Your task to perform on an android device: change the clock display to show seconds Image 0: 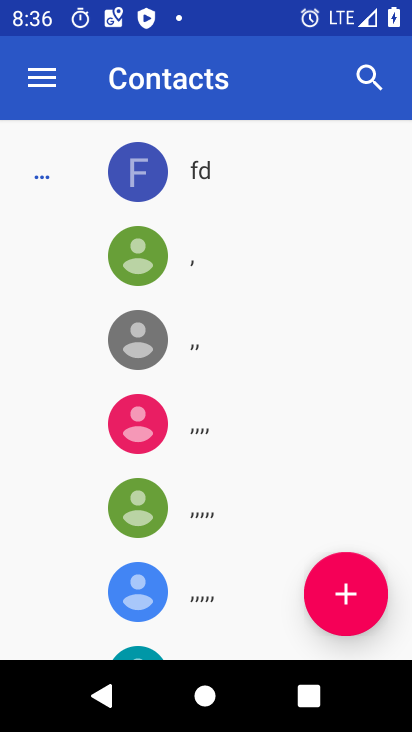
Step 0: press home button
Your task to perform on an android device: change the clock display to show seconds Image 1: 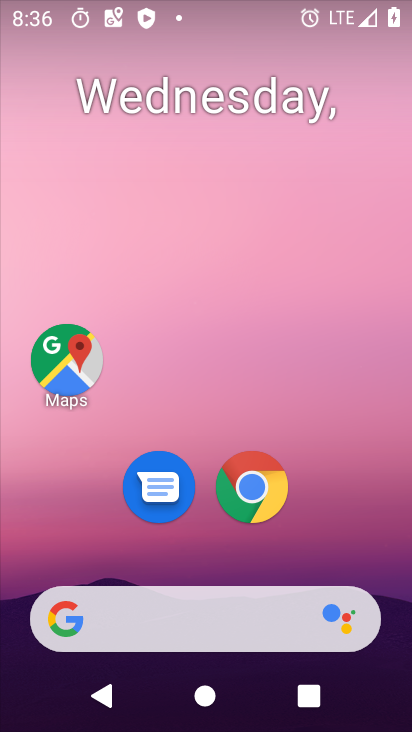
Step 1: drag from (345, 572) to (333, 11)
Your task to perform on an android device: change the clock display to show seconds Image 2: 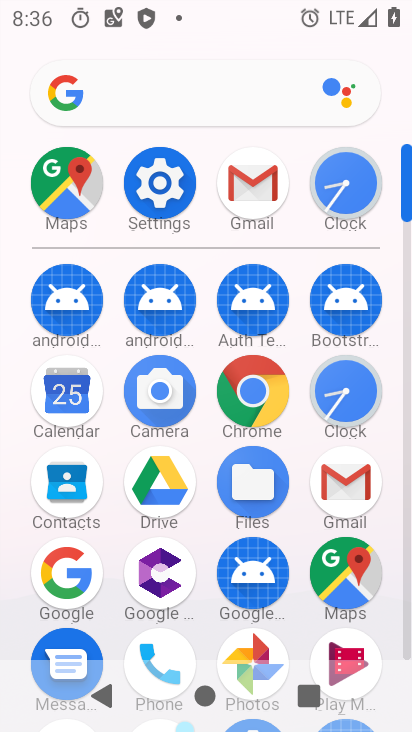
Step 2: click (348, 188)
Your task to perform on an android device: change the clock display to show seconds Image 3: 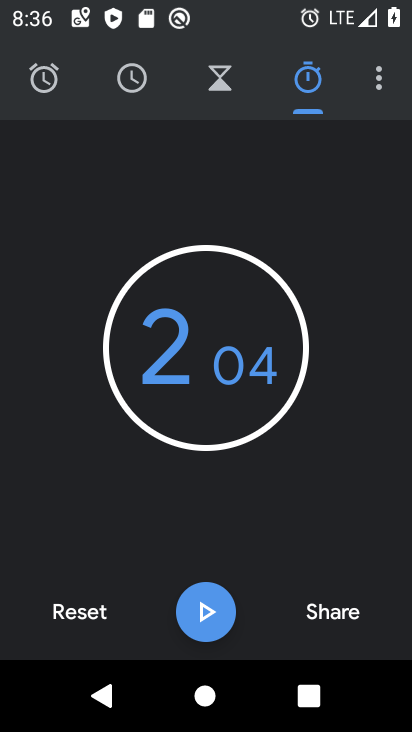
Step 3: click (380, 82)
Your task to perform on an android device: change the clock display to show seconds Image 4: 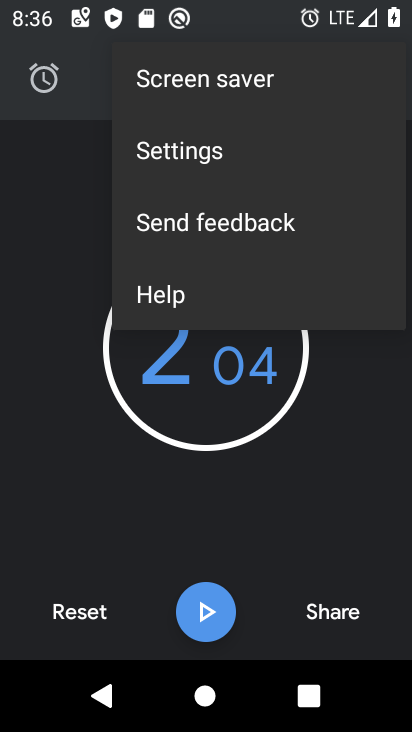
Step 4: click (170, 151)
Your task to perform on an android device: change the clock display to show seconds Image 5: 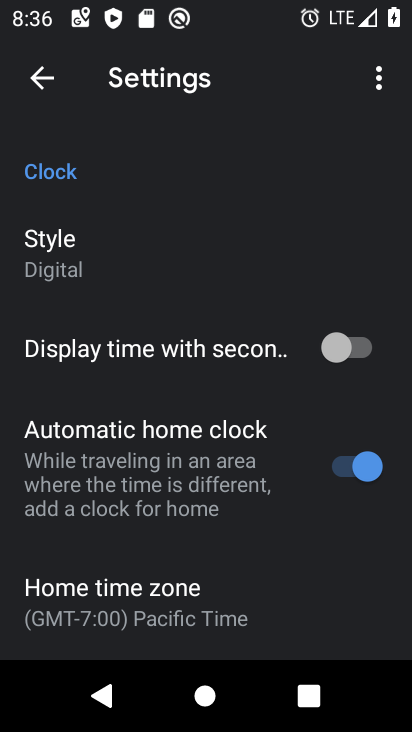
Step 5: click (338, 352)
Your task to perform on an android device: change the clock display to show seconds Image 6: 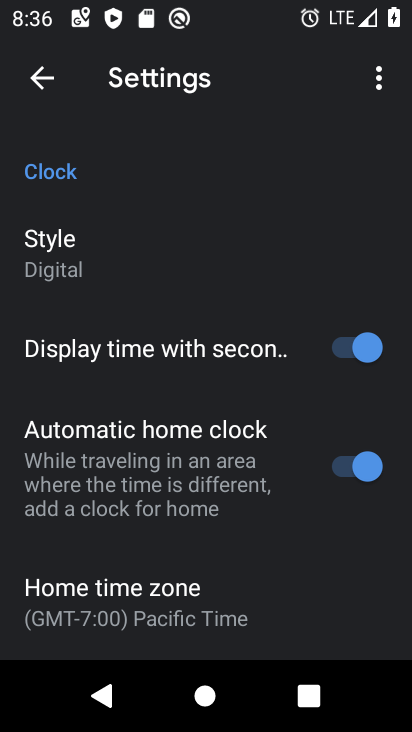
Step 6: task complete